Your task to perform on an android device: When is my next appointment? Image 0: 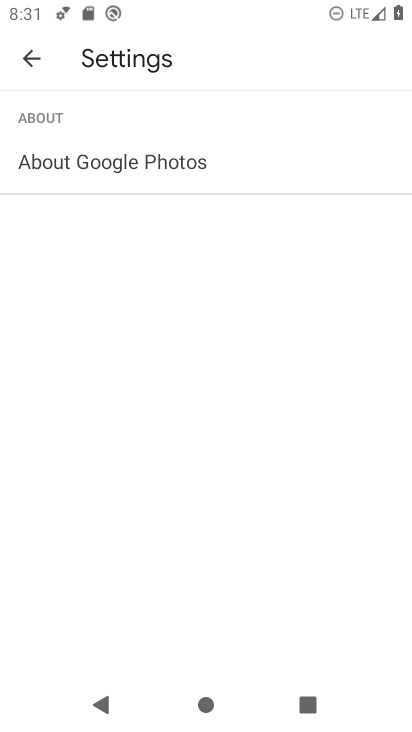
Step 0: press home button
Your task to perform on an android device: When is my next appointment? Image 1: 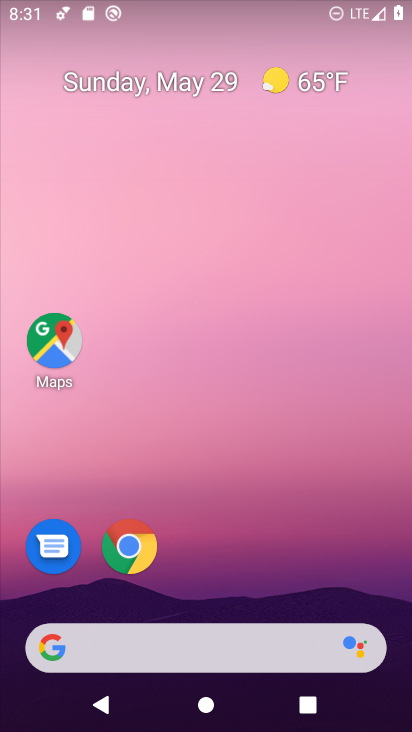
Step 1: drag from (159, 628) to (143, 227)
Your task to perform on an android device: When is my next appointment? Image 2: 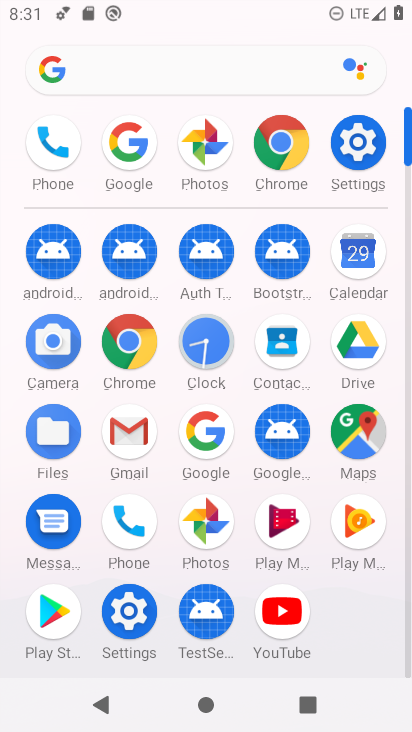
Step 2: click (363, 256)
Your task to perform on an android device: When is my next appointment? Image 3: 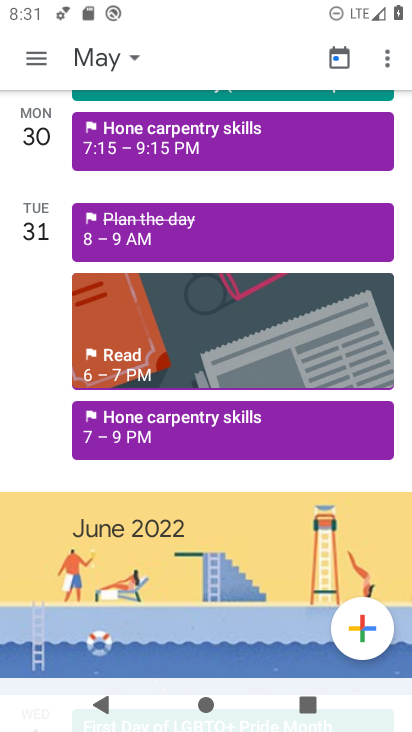
Step 3: click (32, 58)
Your task to perform on an android device: When is my next appointment? Image 4: 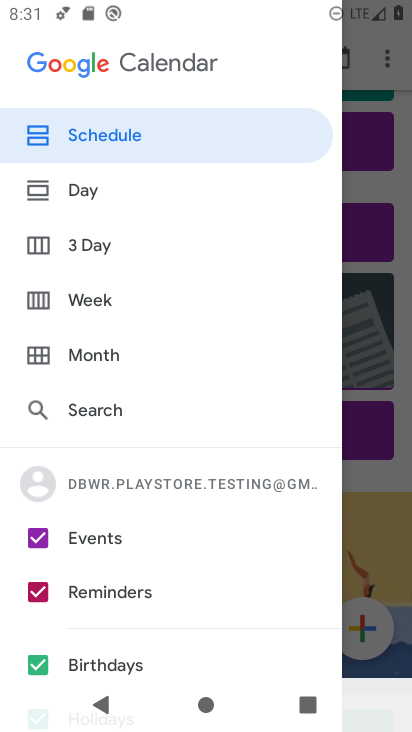
Step 4: click (405, 111)
Your task to perform on an android device: When is my next appointment? Image 5: 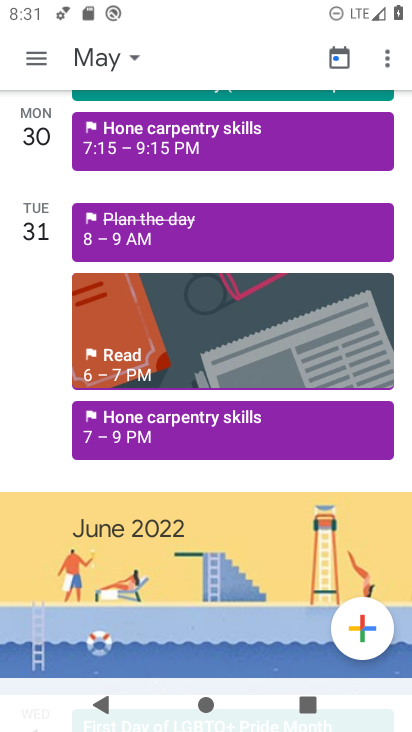
Step 5: click (122, 146)
Your task to perform on an android device: When is my next appointment? Image 6: 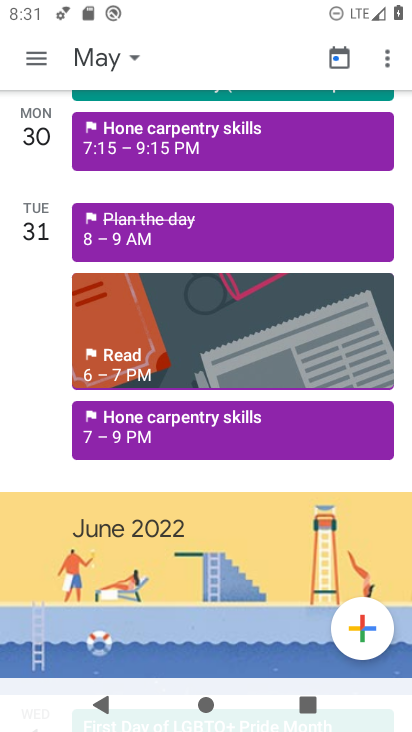
Step 6: click (144, 150)
Your task to perform on an android device: When is my next appointment? Image 7: 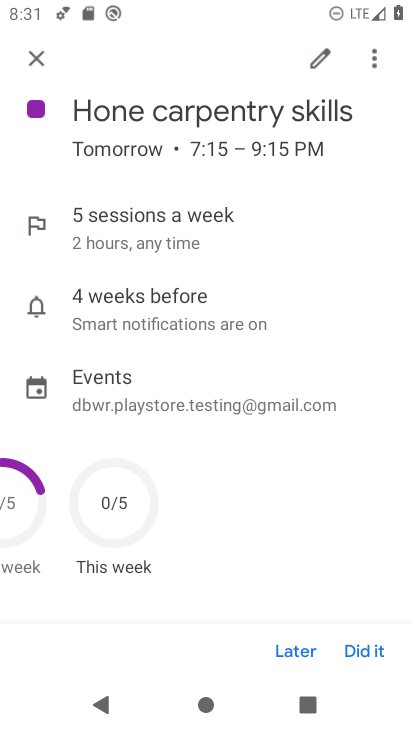
Step 7: task complete